Your task to perform on an android device: make emails show in primary in the gmail app Image 0: 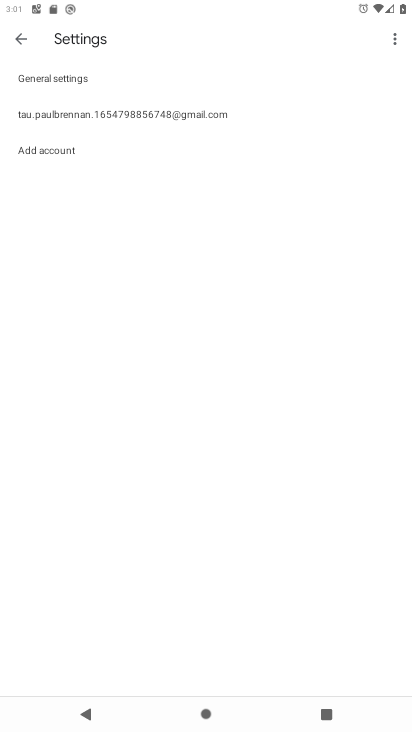
Step 0: press home button
Your task to perform on an android device: make emails show in primary in the gmail app Image 1: 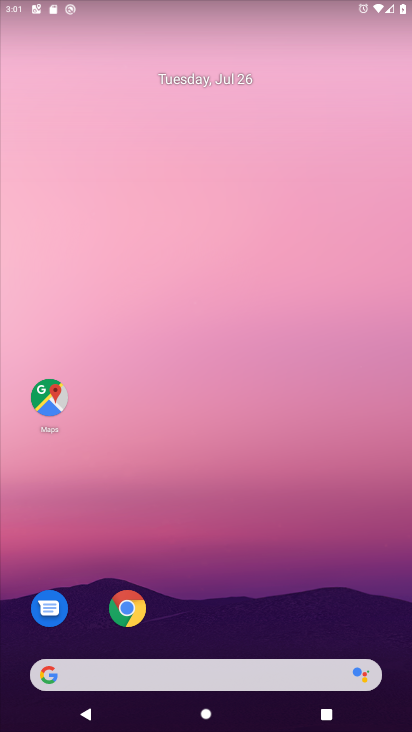
Step 1: drag from (211, 618) to (182, 78)
Your task to perform on an android device: make emails show in primary in the gmail app Image 2: 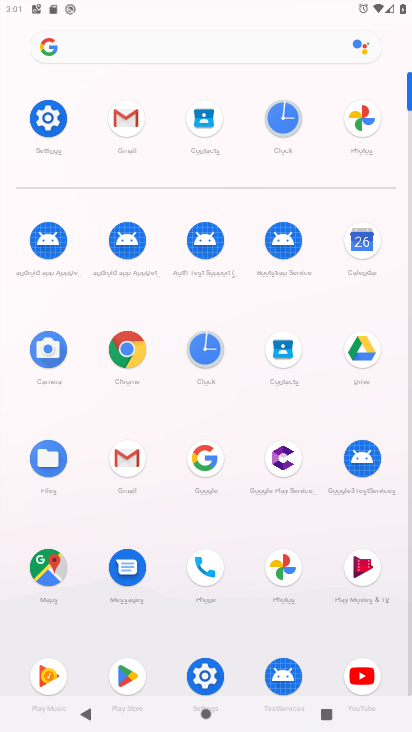
Step 2: click (125, 131)
Your task to perform on an android device: make emails show in primary in the gmail app Image 3: 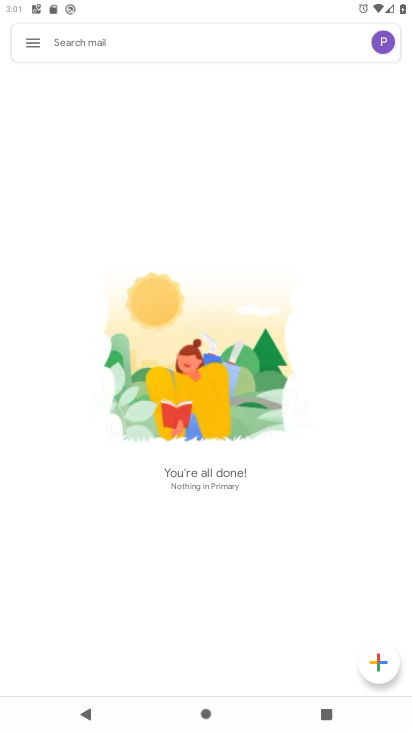
Step 3: click (31, 40)
Your task to perform on an android device: make emails show in primary in the gmail app Image 4: 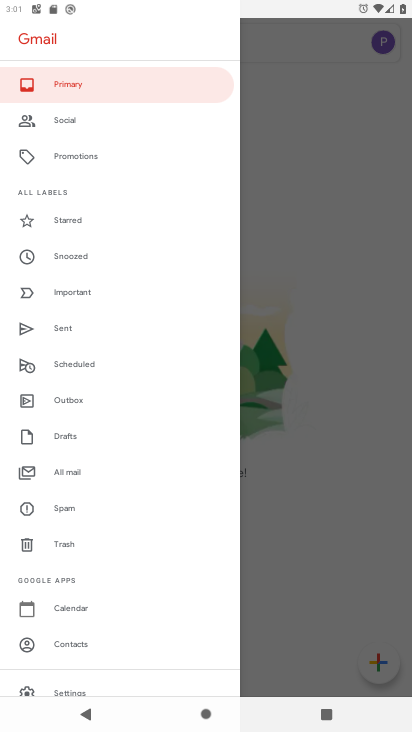
Step 4: click (109, 688)
Your task to perform on an android device: make emails show in primary in the gmail app Image 5: 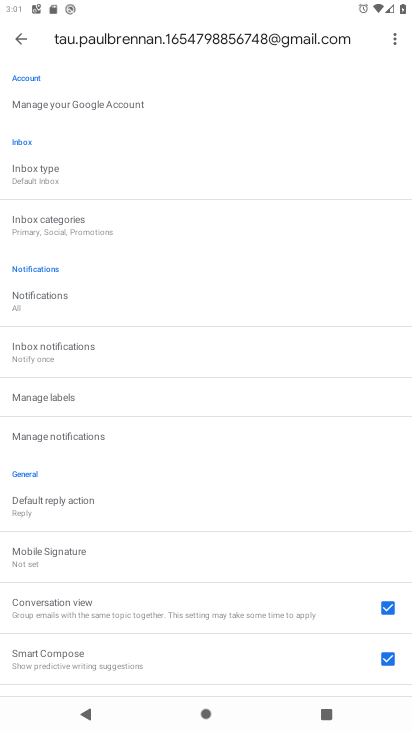
Step 5: click (77, 168)
Your task to perform on an android device: make emails show in primary in the gmail app Image 6: 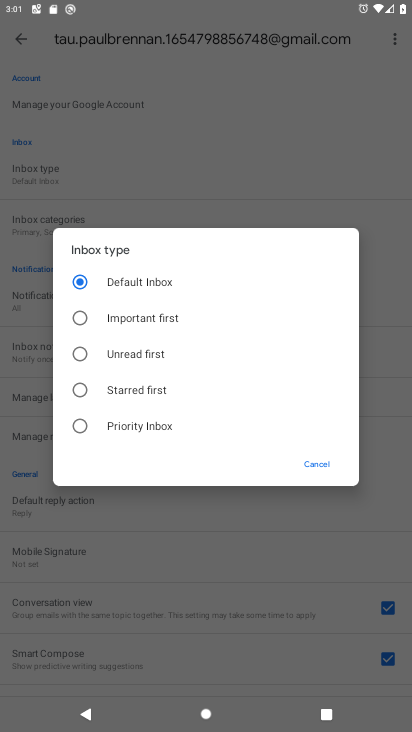
Step 6: click (84, 277)
Your task to perform on an android device: make emails show in primary in the gmail app Image 7: 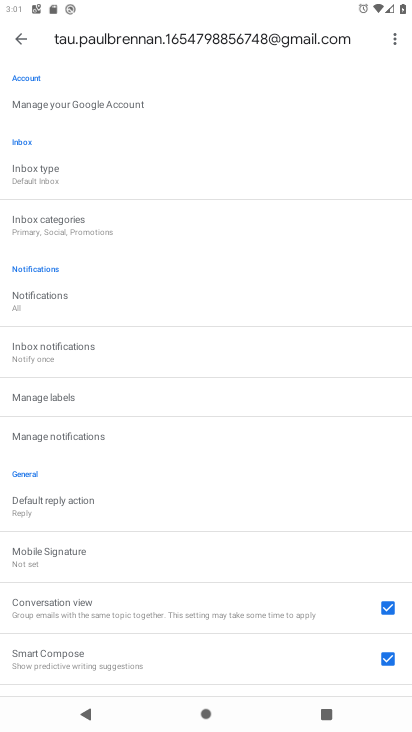
Step 7: task complete